Your task to perform on an android device: choose inbox layout in the gmail app Image 0: 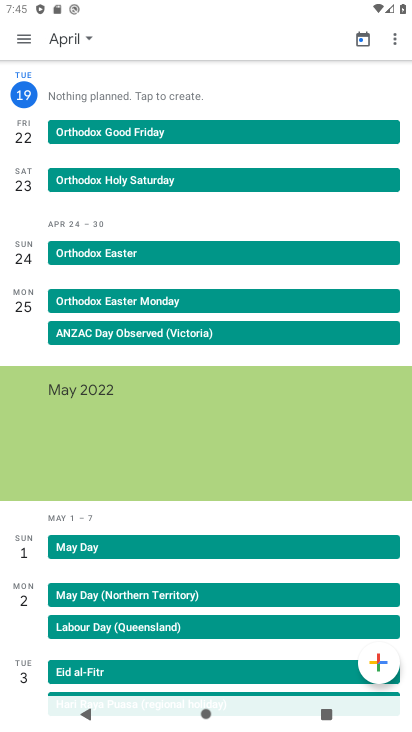
Step 0: press home button
Your task to perform on an android device: choose inbox layout in the gmail app Image 1: 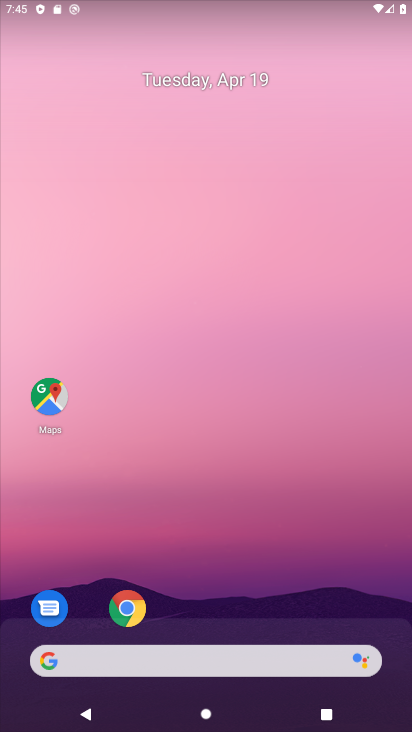
Step 1: drag from (161, 543) to (233, 62)
Your task to perform on an android device: choose inbox layout in the gmail app Image 2: 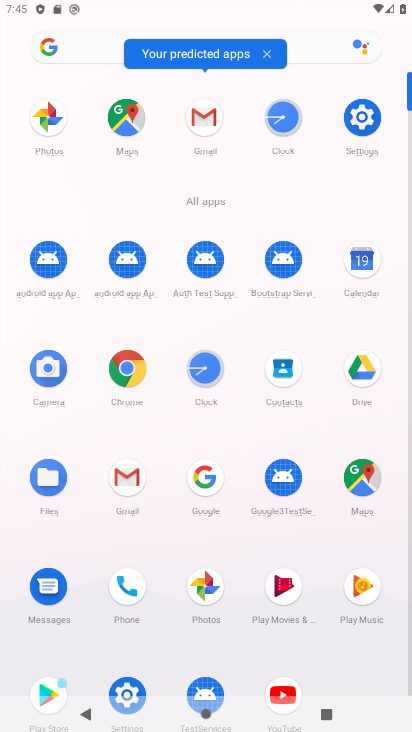
Step 2: click (210, 120)
Your task to perform on an android device: choose inbox layout in the gmail app Image 3: 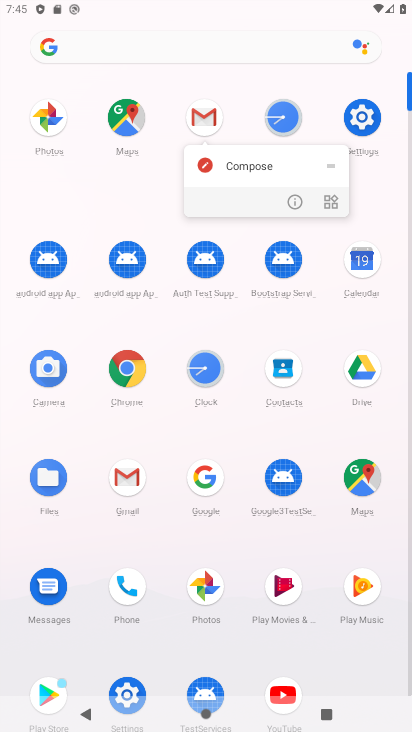
Step 3: click (210, 120)
Your task to perform on an android device: choose inbox layout in the gmail app Image 4: 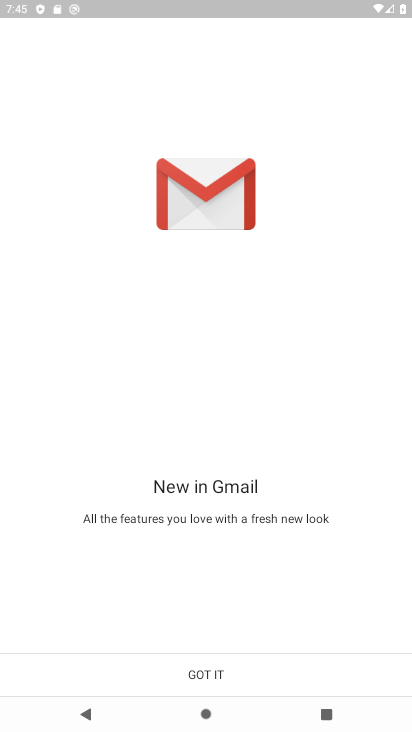
Step 4: click (217, 669)
Your task to perform on an android device: choose inbox layout in the gmail app Image 5: 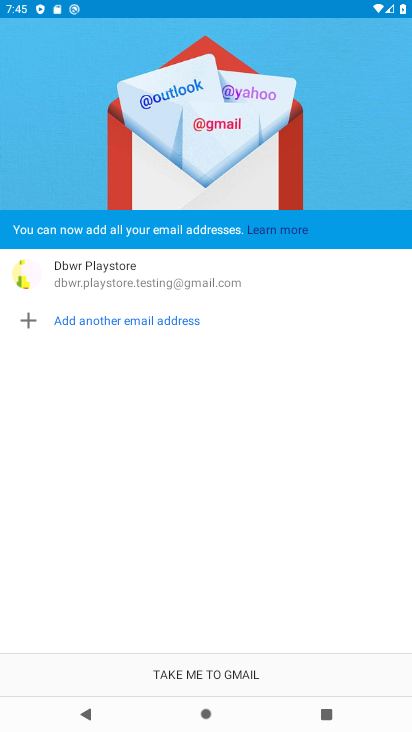
Step 5: click (211, 681)
Your task to perform on an android device: choose inbox layout in the gmail app Image 6: 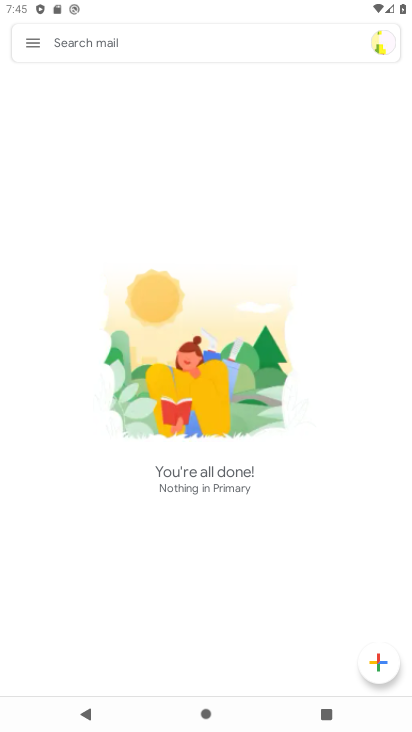
Step 6: click (34, 43)
Your task to perform on an android device: choose inbox layout in the gmail app Image 7: 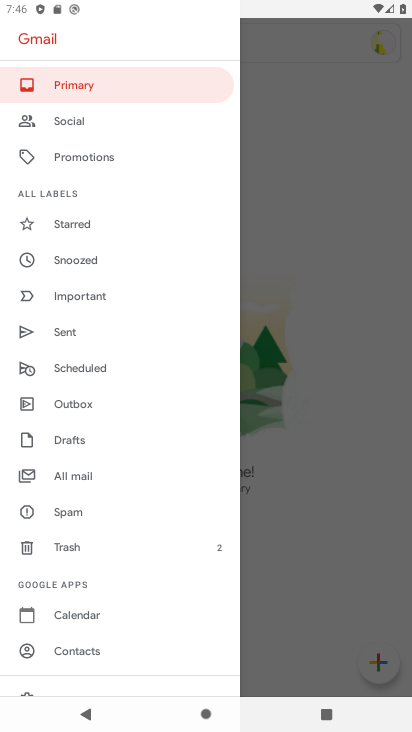
Step 7: drag from (109, 533) to (123, 443)
Your task to perform on an android device: choose inbox layout in the gmail app Image 8: 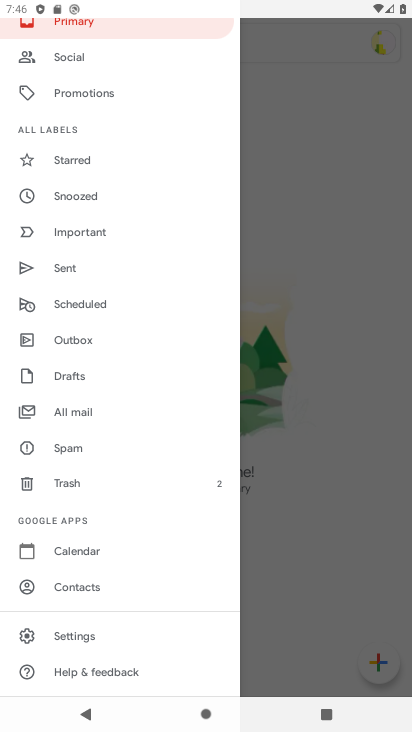
Step 8: click (73, 637)
Your task to perform on an android device: choose inbox layout in the gmail app Image 9: 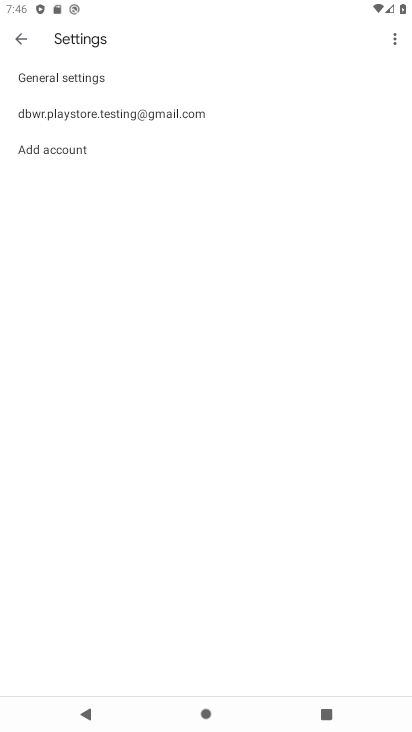
Step 9: click (70, 113)
Your task to perform on an android device: choose inbox layout in the gmail app Image 10: 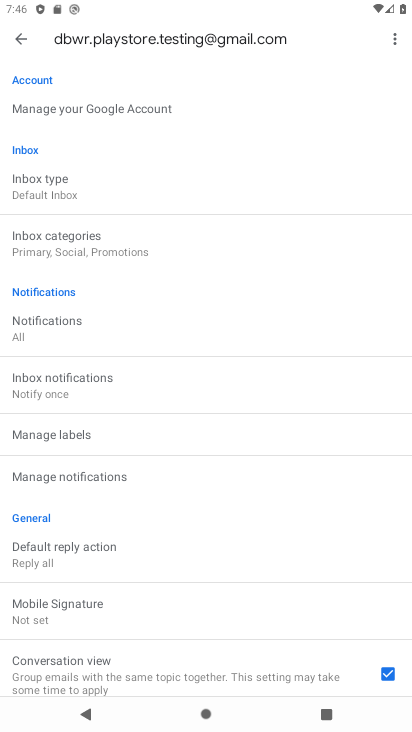
Step 10: click (59, 204)
Your task to perform on an android device: choose inbox layout in the gmail app Image 11: 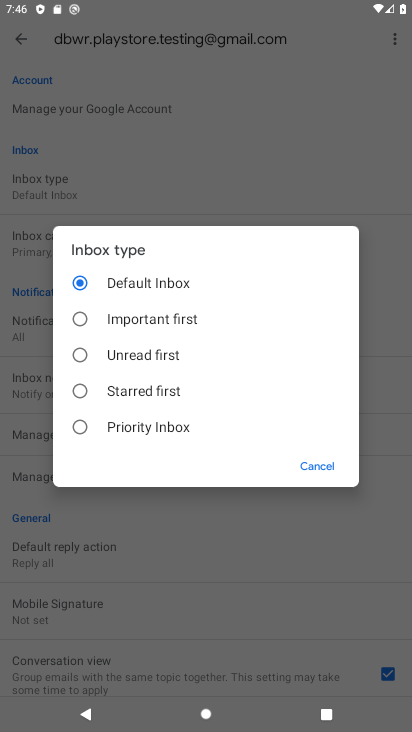
Step 11: click (123, 318)
Your task to perform on an android device: choose inbox layout in the gmail app Image 12: 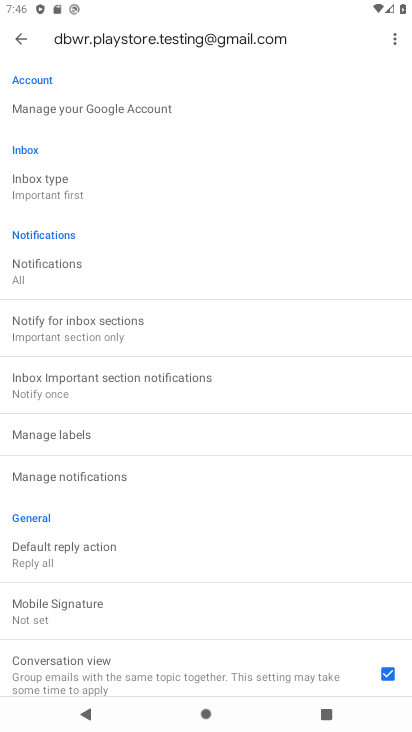
Step 12: task complete